Your task to perform on an android device: What is the recent news? Image 0: 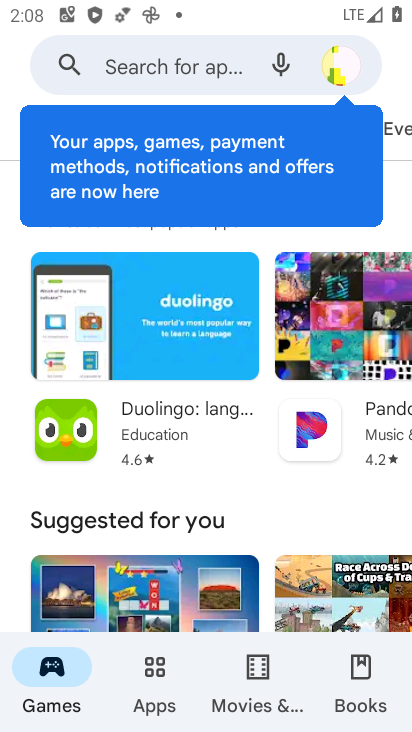
Step 0: press home button
Your task to perform on an android device: What is the recent news? Image 1: 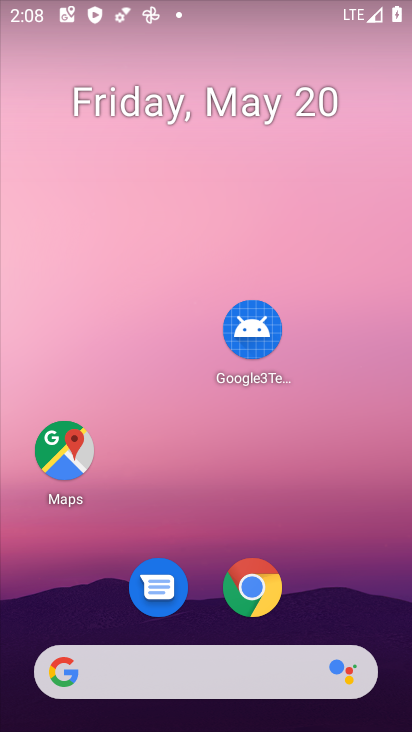
Step 1: task complete